Your task to perform on an android device: Go to wifi settings Image 0: 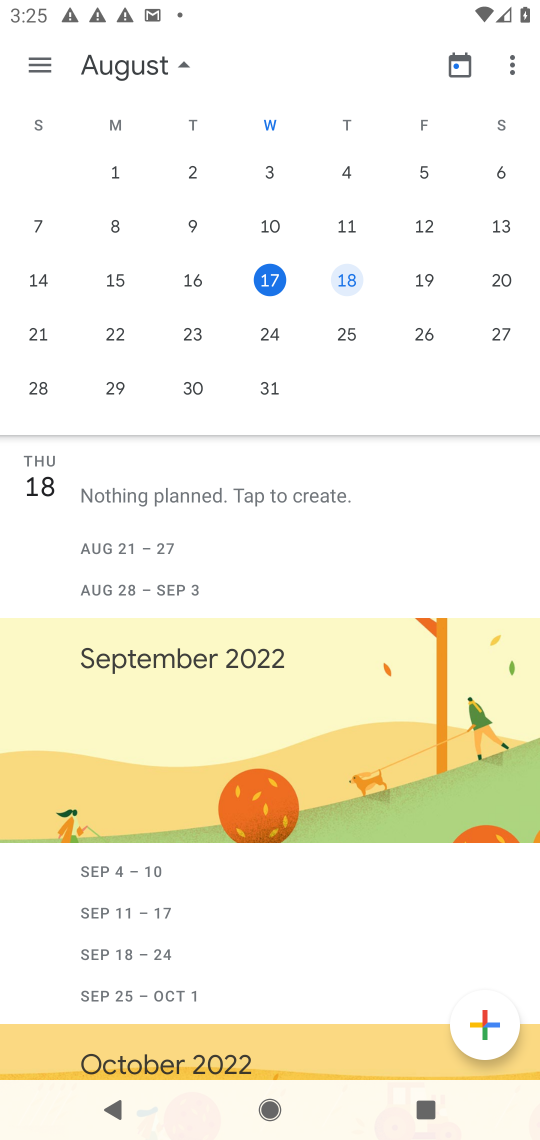
Step 0: press home button
Your task to perform on an android device: Go to wifi settings Image 1: 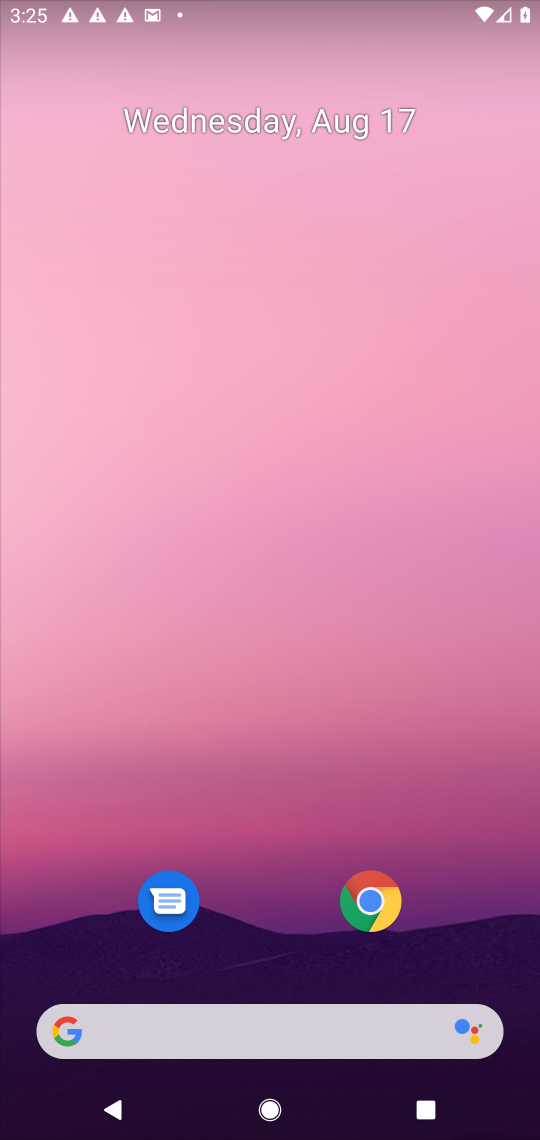
Step 1: drag from (223, 1014) to (223, 339)
Your task to perform on an android device: Go to wifi settings Image 2: 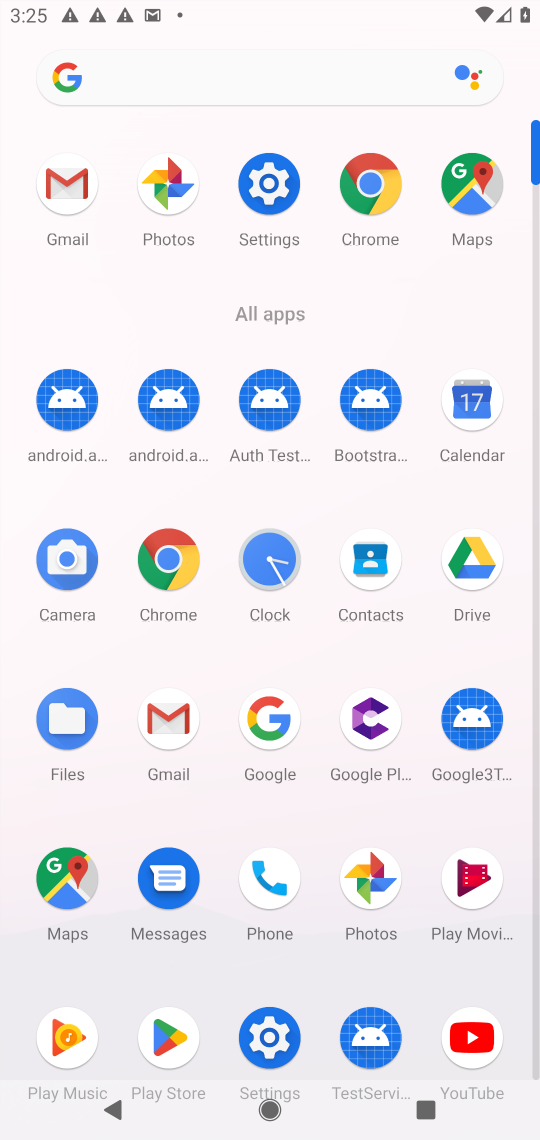
Step 2: click (300, 177)
Your task to perform on an android device: Go to wifi settings Image 3: 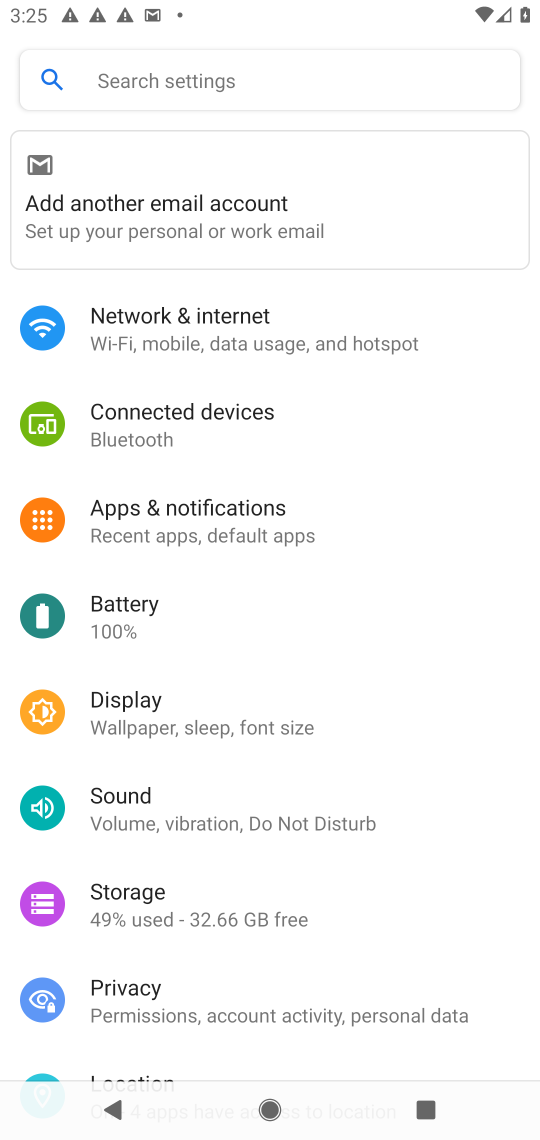
Step 3: click (163, 342)
Your task to perform on an android device: Go to wifi settings Image 4: 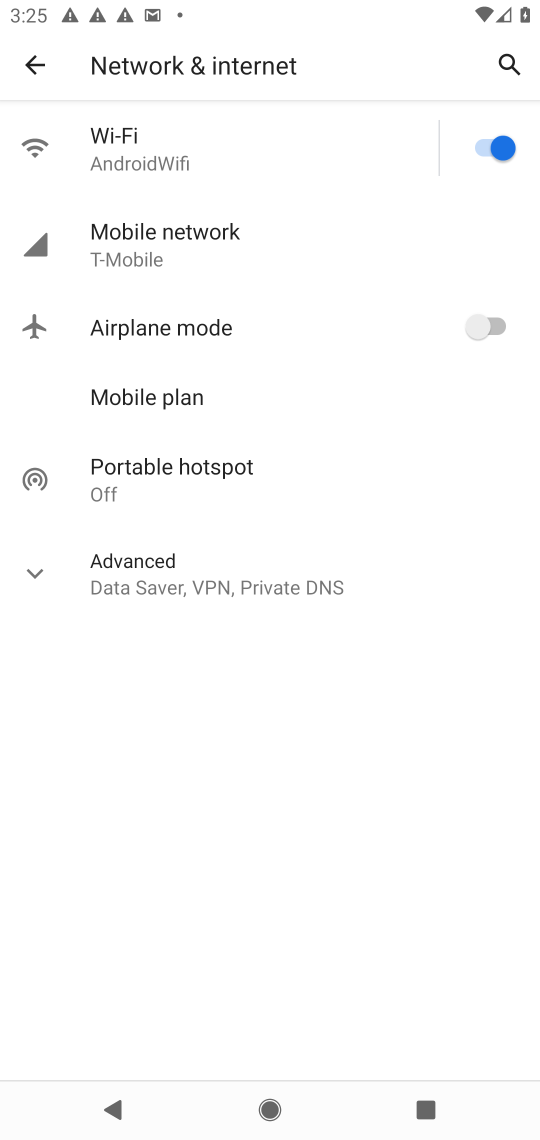
Step 4: click (132, 140)
Your task to perform on an android device: Go to wifi settings Image 5: 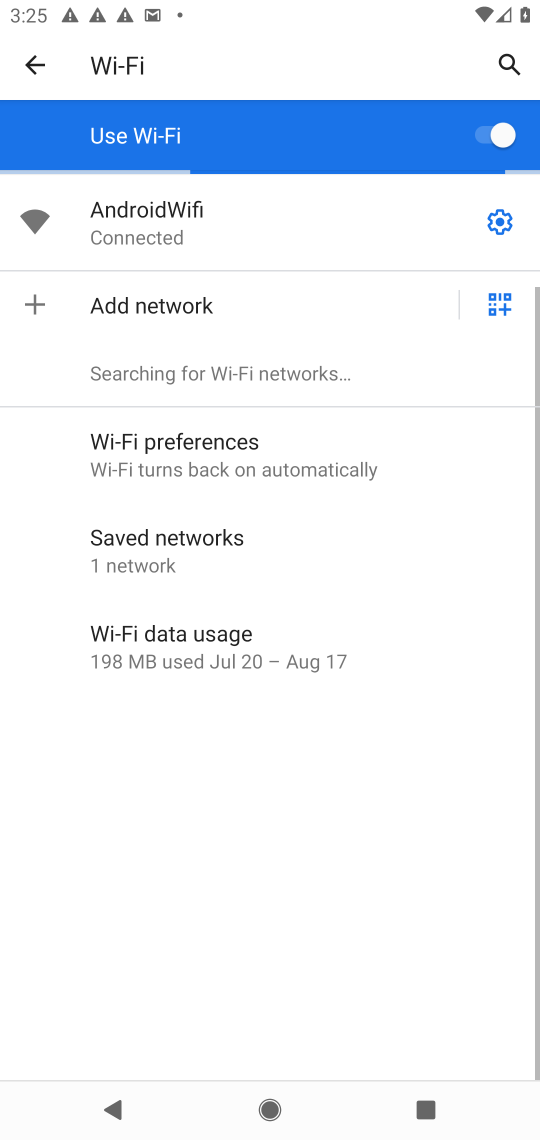
Step 5: click (107, 159)
Your task to perform on an android device: Go to wifi settings Image 6: 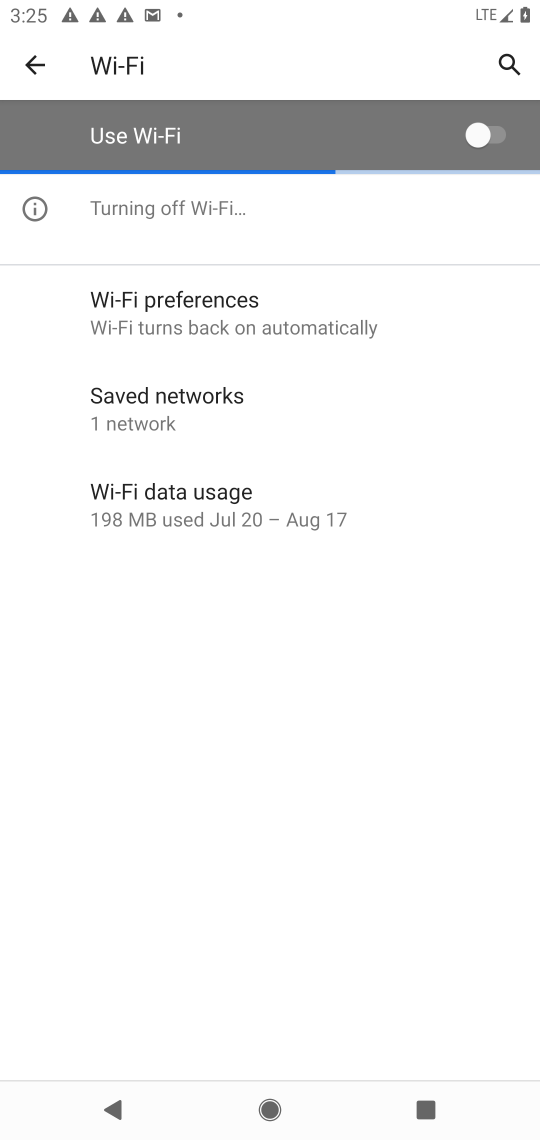
Step 6: click (490, 135)
Your task to perform on an android device: Go to wifi settings Image 7: 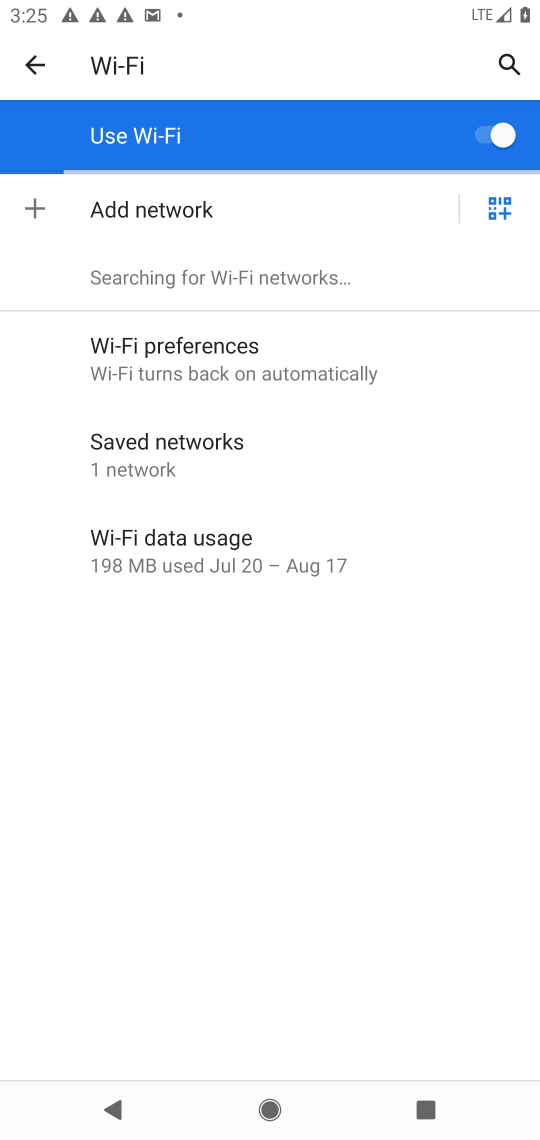
Step 7: click (495, 212)
Your task to perform on an android device: Go to wifi settings Image 8: 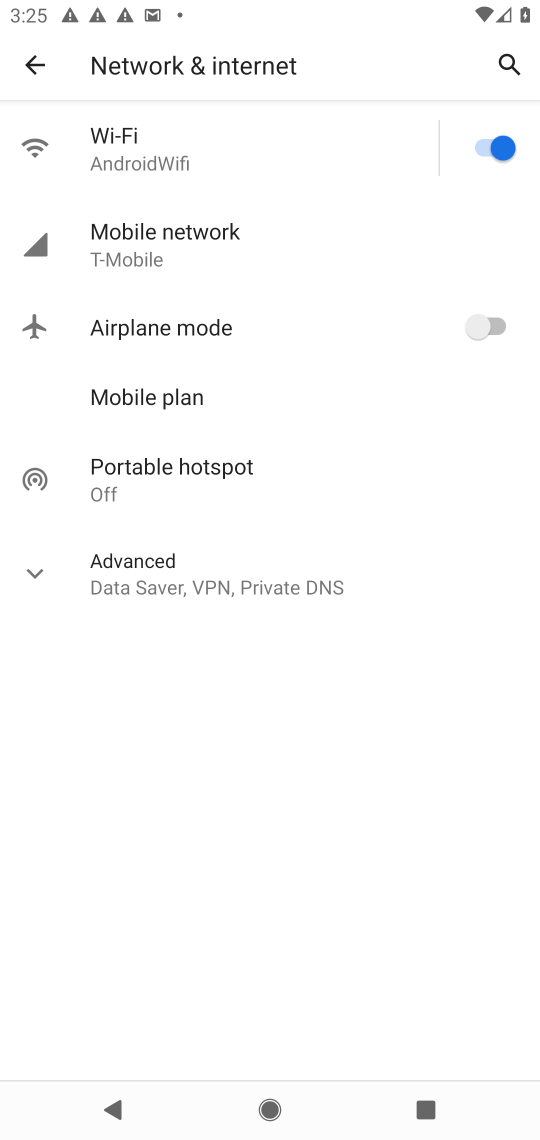
Step 8: click (141, 146)
Your task to perform on an android device: Go to wifi settings Image 9: 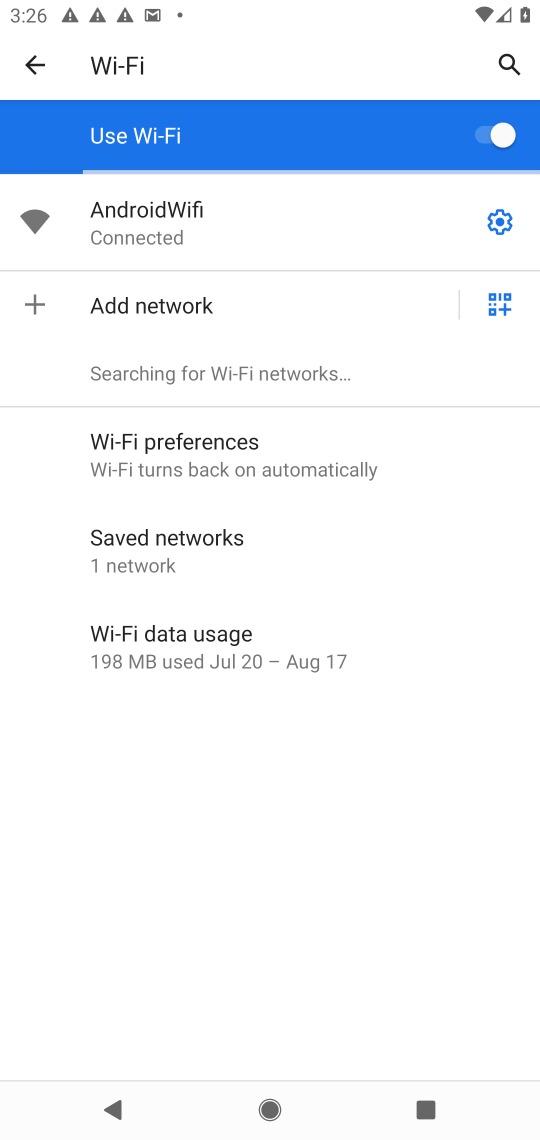
Step 9: click (501, 221)
Your task to perform on an android device: Go to wifi settings Image 10: 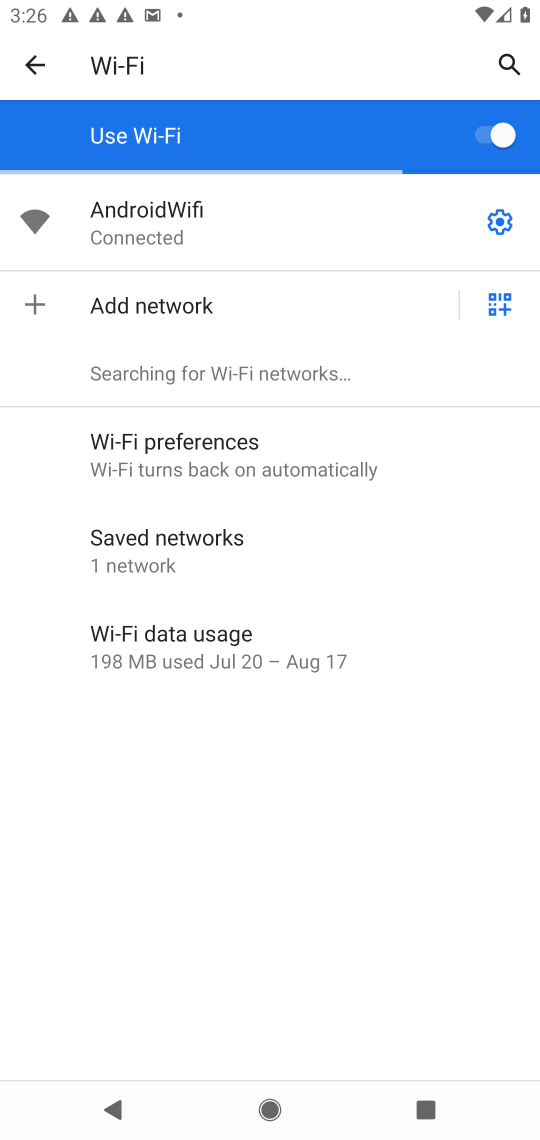
Step 10: task complete